Your task to perform on an android device: turn vacation reply on in the gmail app Image 0: 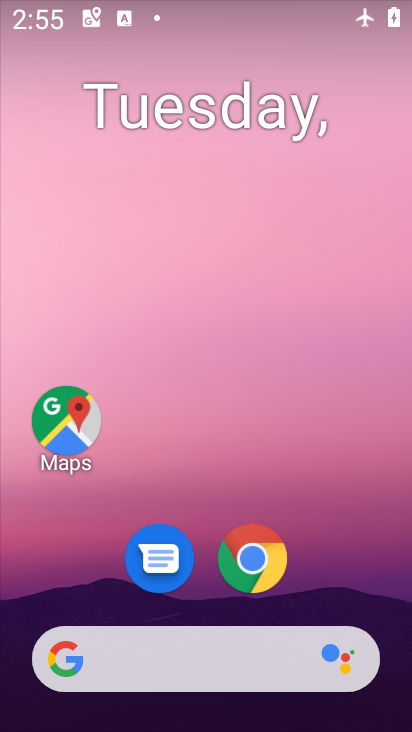
Step 0: drag from (220, 499) to (219, 129)
Your task to perform on an android device: turn vacation reply on in the gmail app Image 1: 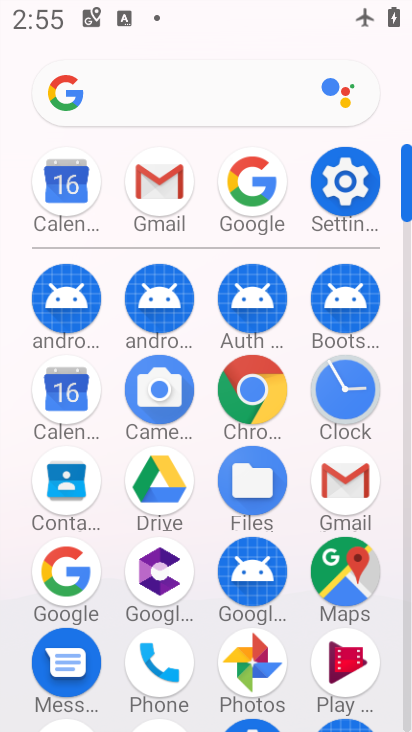
Step 1: click (166, 179)
Your task to perform on an android device: turn vacation reply on in the gmail app Image 2: 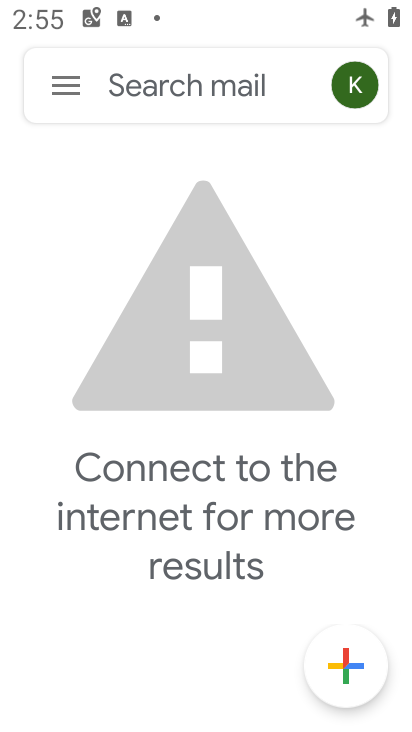
Step 2: click (53, 84)
Your task to perform on an android device: turn vacation reply on in the gmail app Image 3: 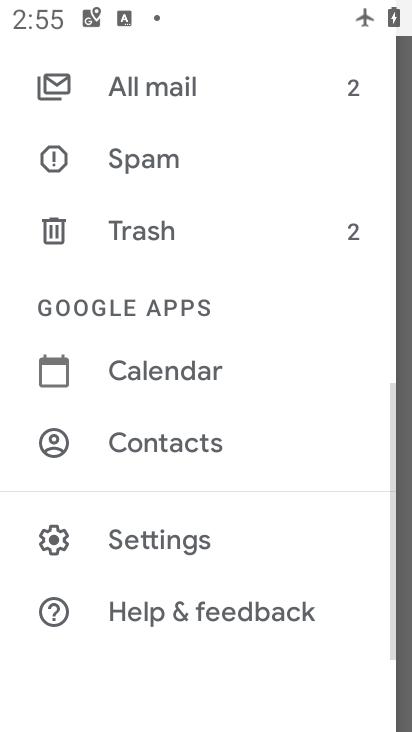
Step 3: click (200, 542)
Your task to perform on an android device: turn vacation reply on in the gmail app Image 4: 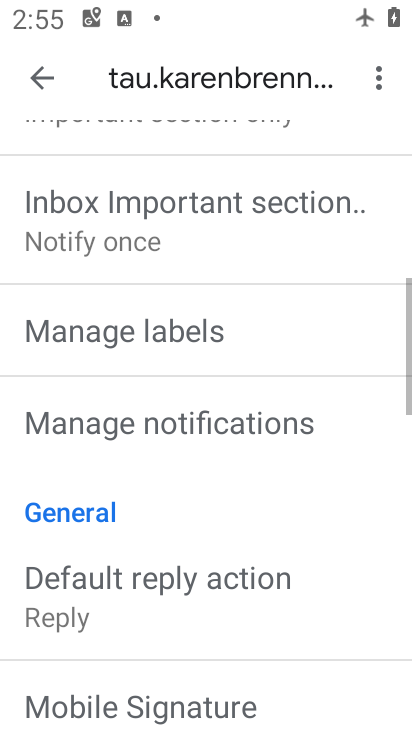
Step 4: drag from (212, 588) to (249, 254)
Your task to perform on an android device: turn vacation reply on in the gmail app Image 5: 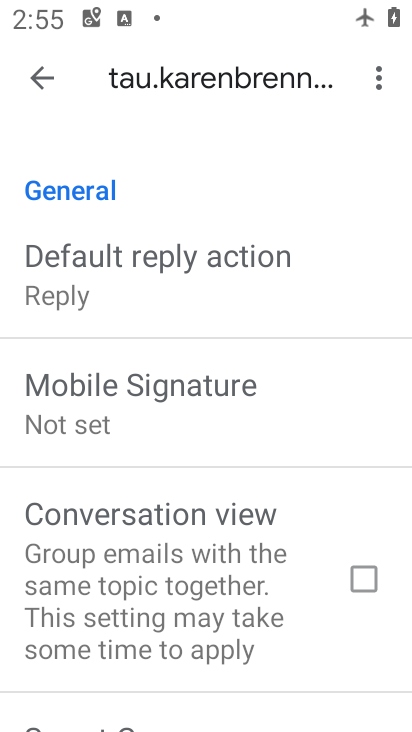
Step 5: drag from (225, 623) to (224, 225)
Your task to perform on an android device: turn vacation reply on in the gmail app Image 6: 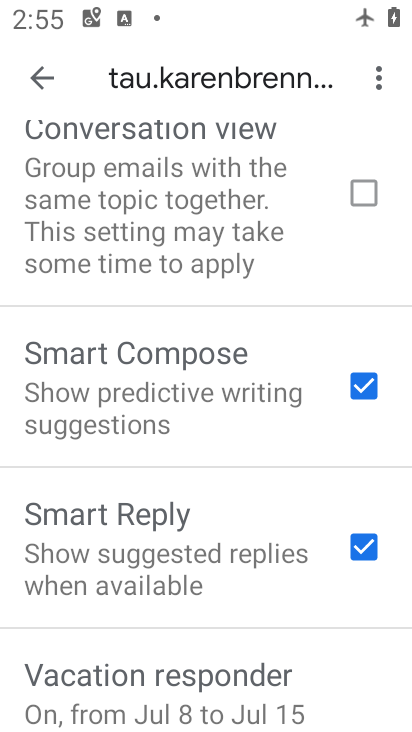
Step 6: click (264, 680)
Your task to perform on an android device: turn vacation reply on in the gmail app Image 7: 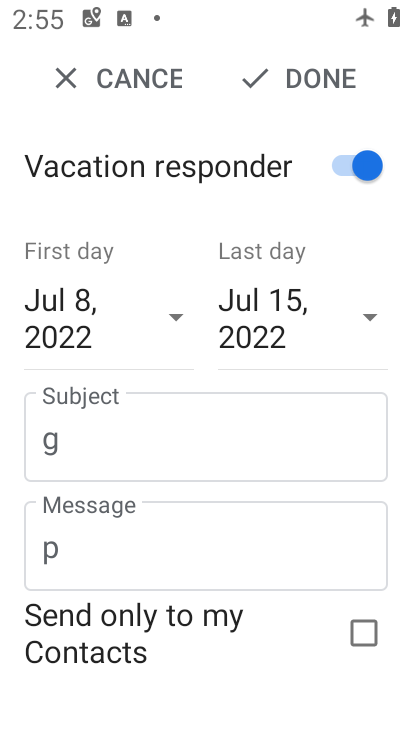
Step 7: task complete